Your task to perform on an android device: View the shopping cart on newegg. Image 0: 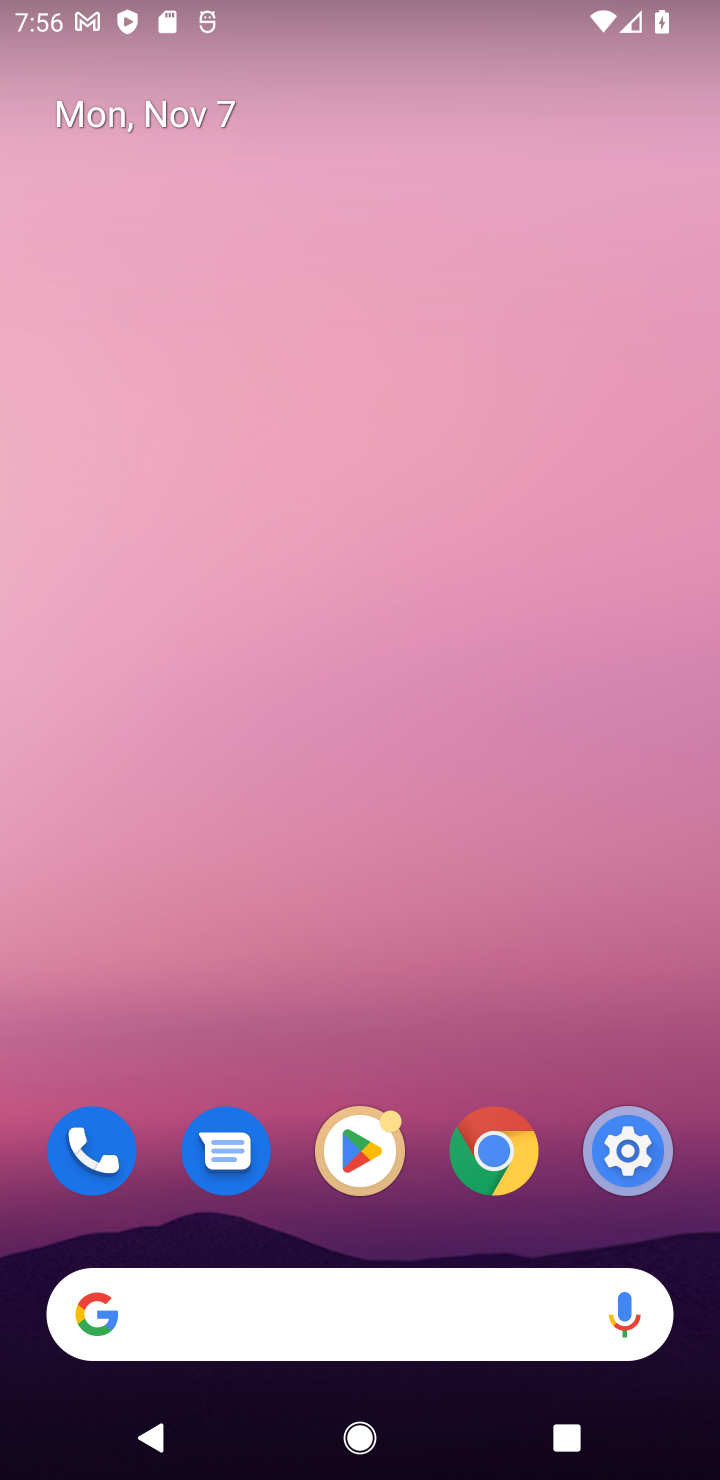
Step 0: click (507, 1169)
Your task to perform on an android device: View the shopping cart on newegg. Image 1: 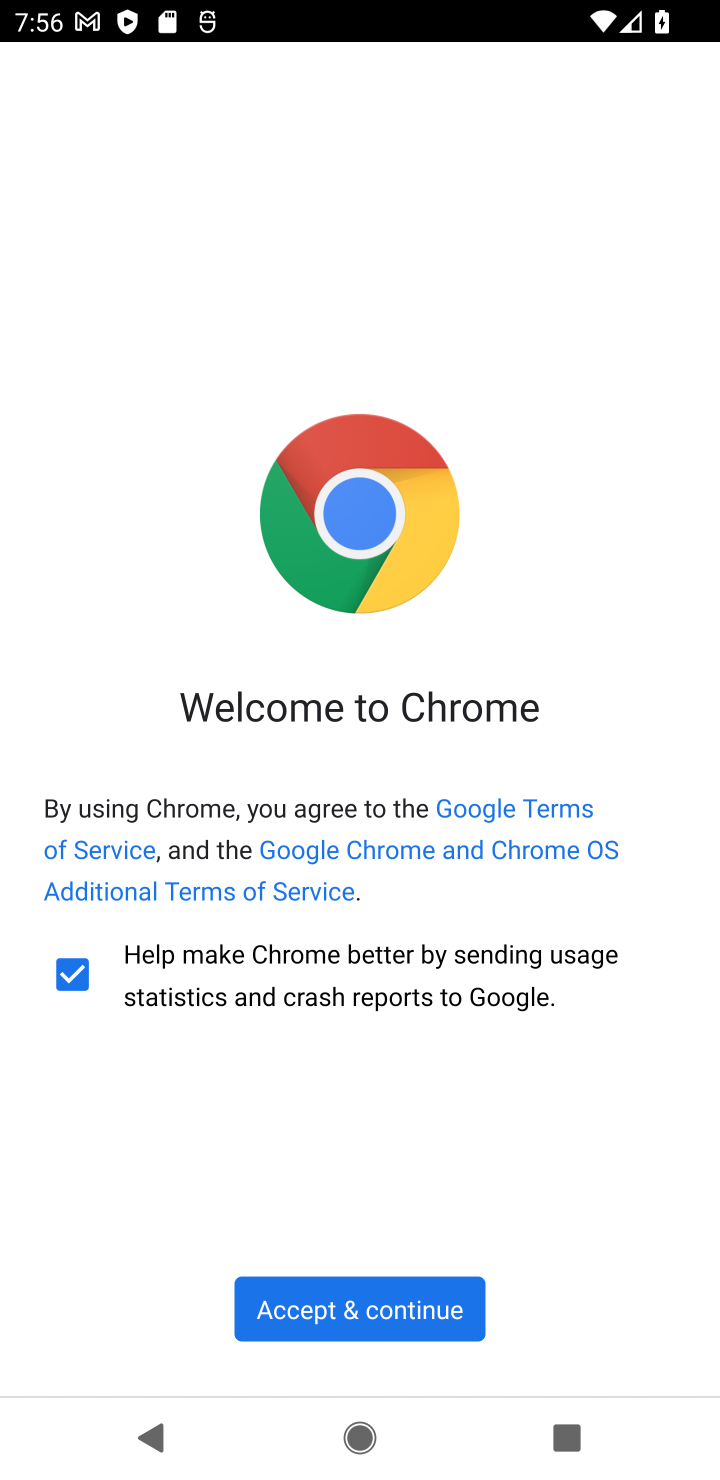
Step 1: click (412, 1305)
Your task to perform on an android device: View the shopping cart on newegg. Image 2: 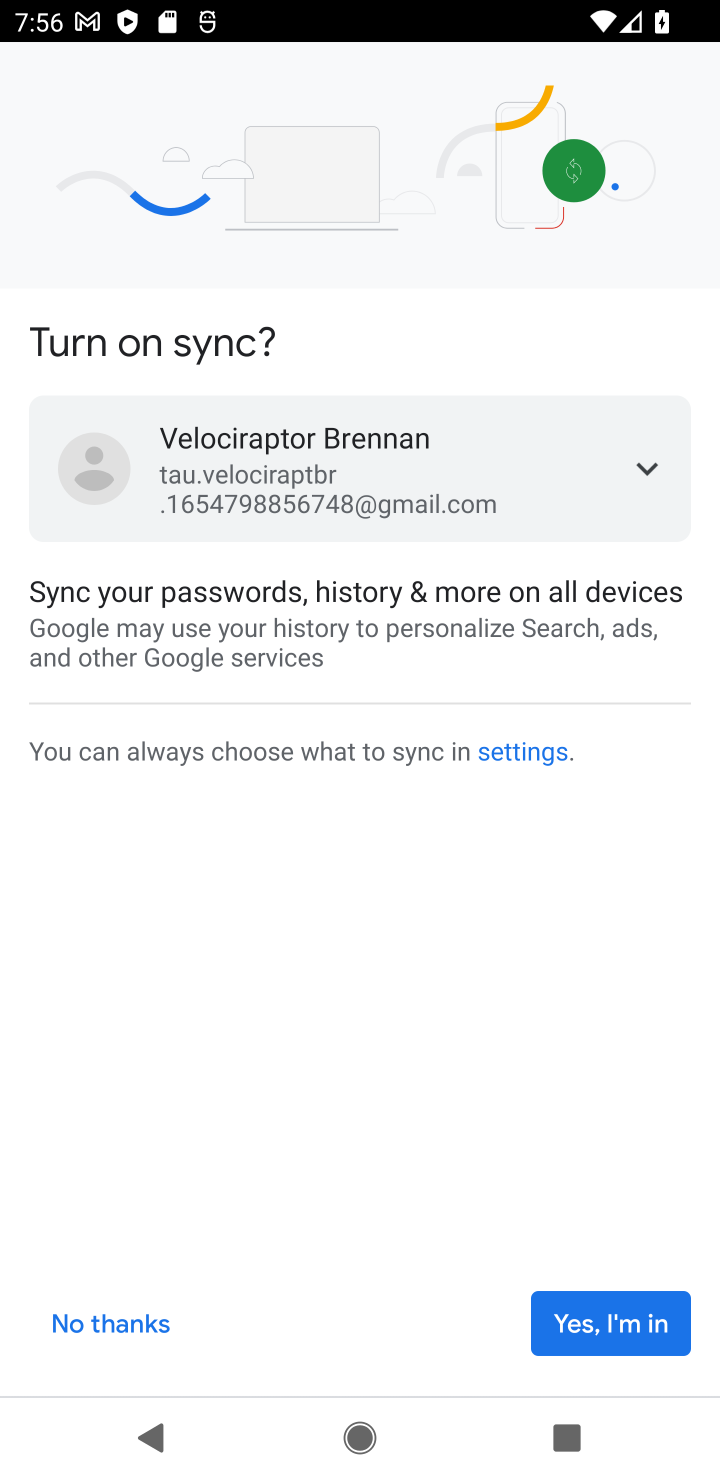
Step 2: click (608, 1315)
Your task to perform on an android device: View the shopping cart on newegg. Image 3: 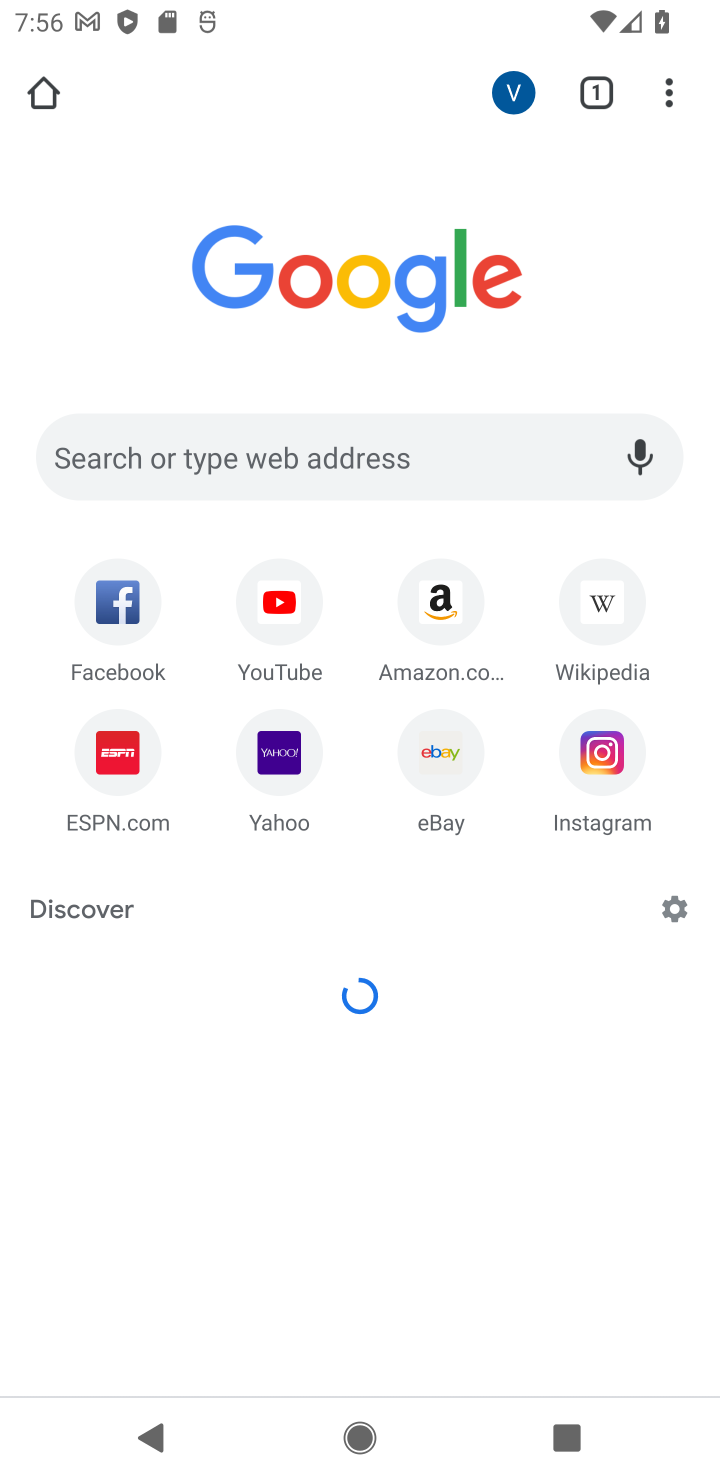
Step 3: click (510, 457)
Your task to perform on an android device: View the shopping cart on newegg. Image 4: 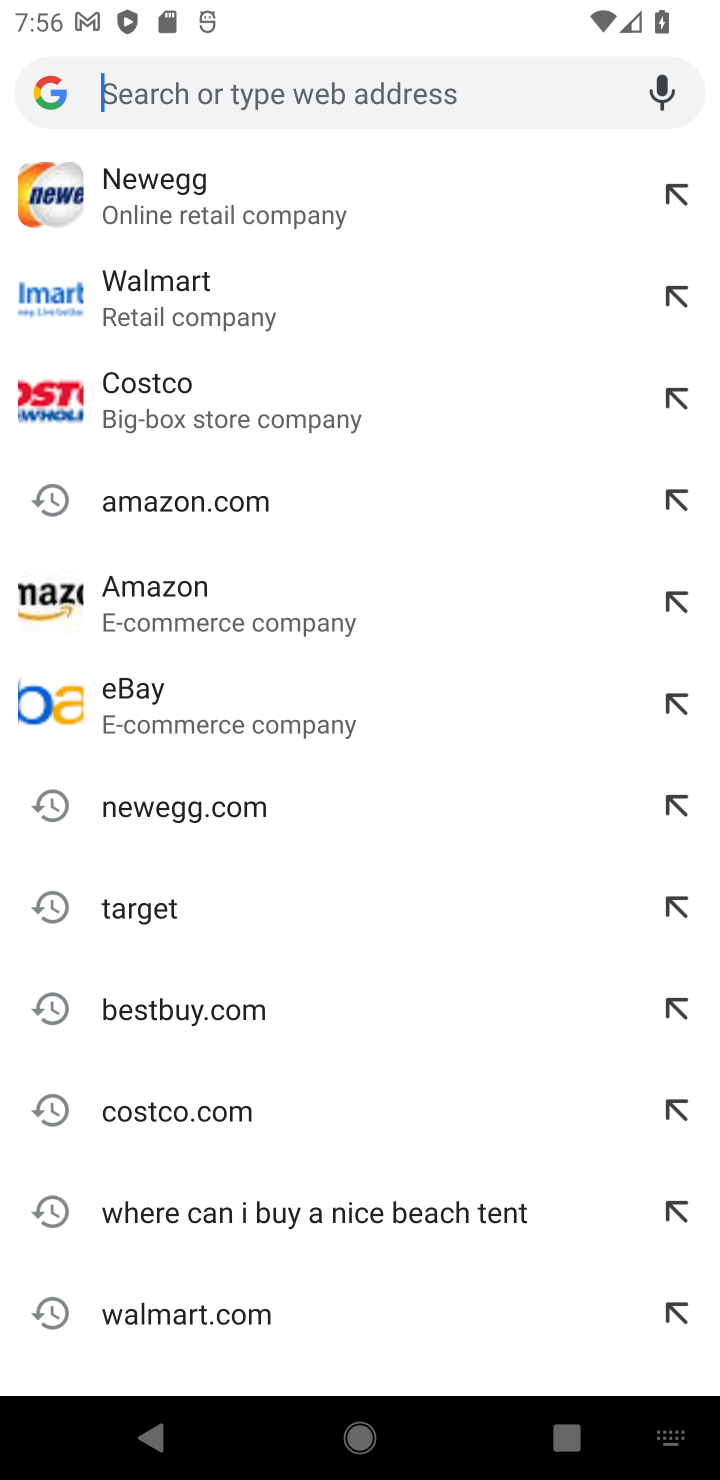
Step 4: type "newegg"
Your task to perform on an android device: View the shopping cart on newegg. Image 5: 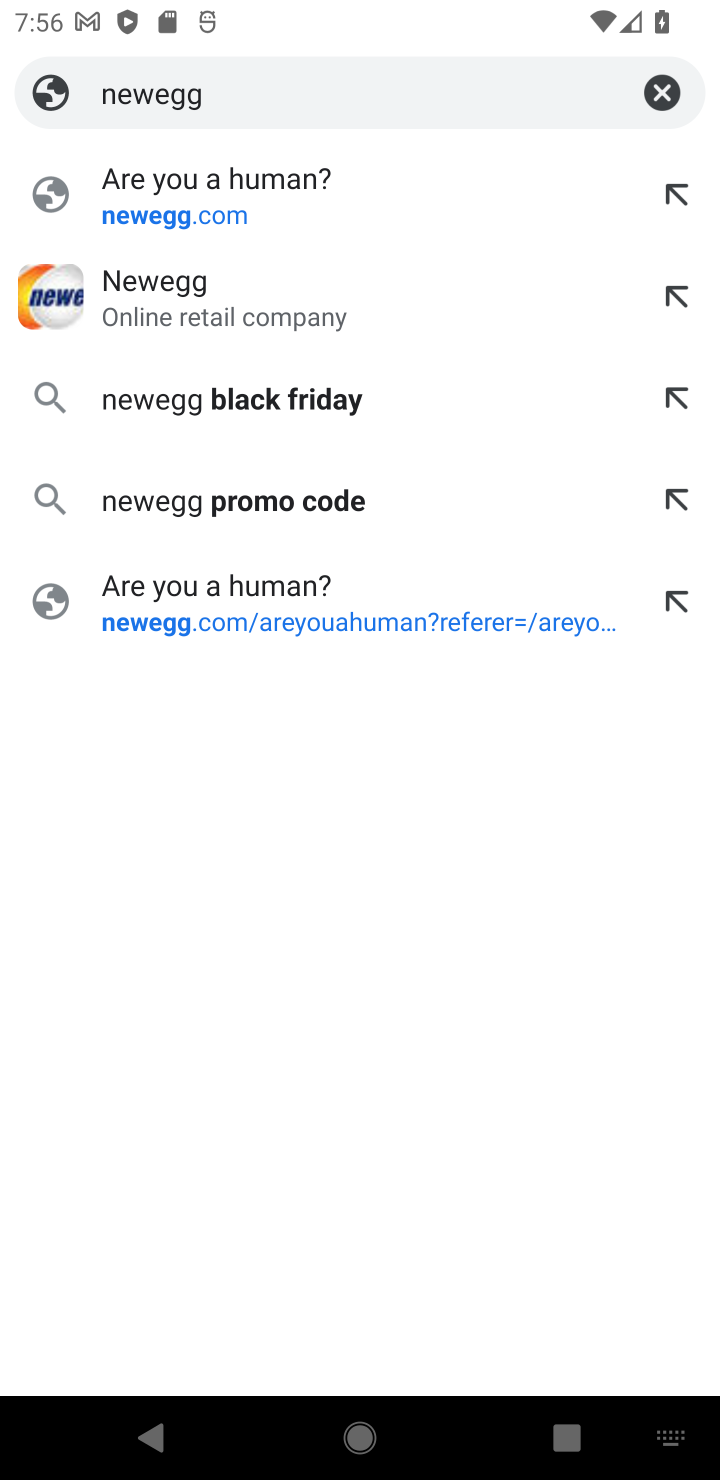
Step 5: click (504, 100)
Your task to perform on an android device: View the shopping cart on newegg. Image 6: 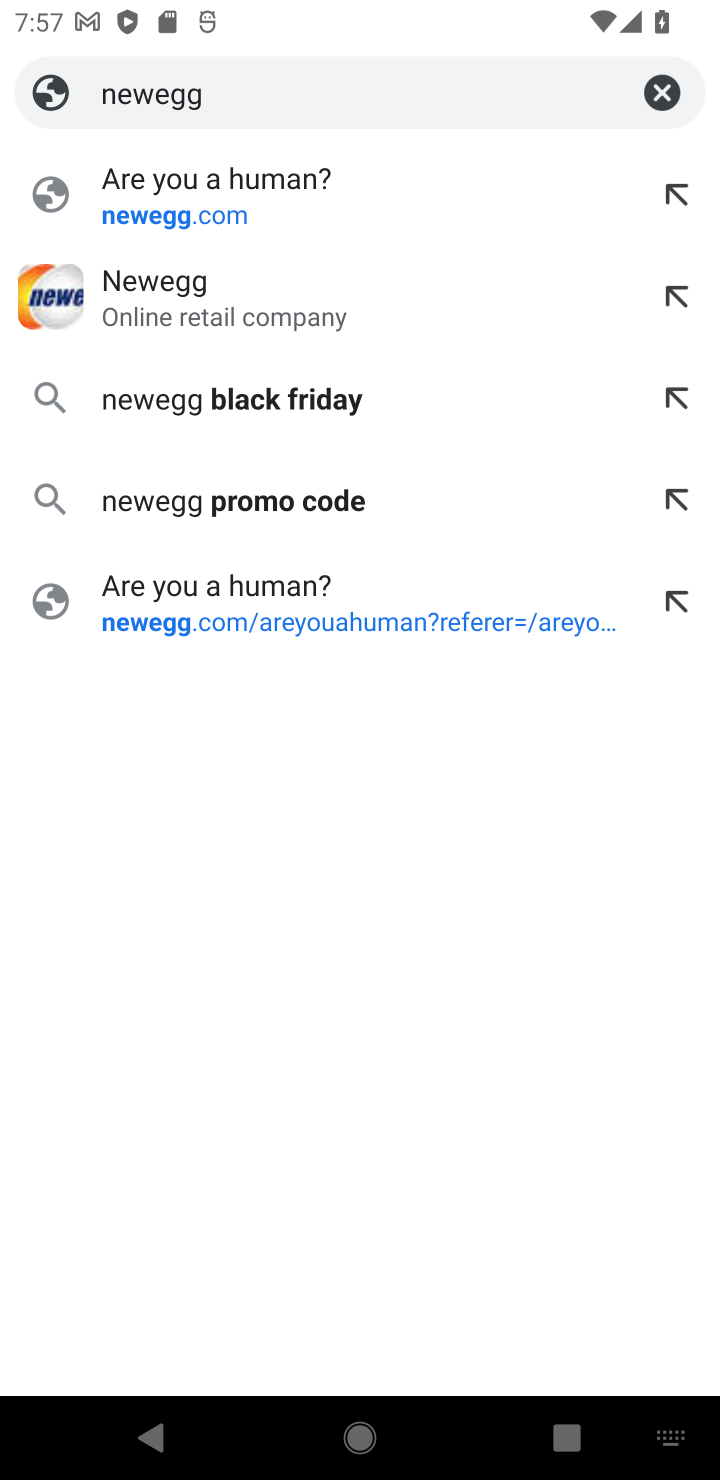
Step 6: click (200, 295)
Your task to perform on an android device: View the shopping cart on newegg. Image 7: 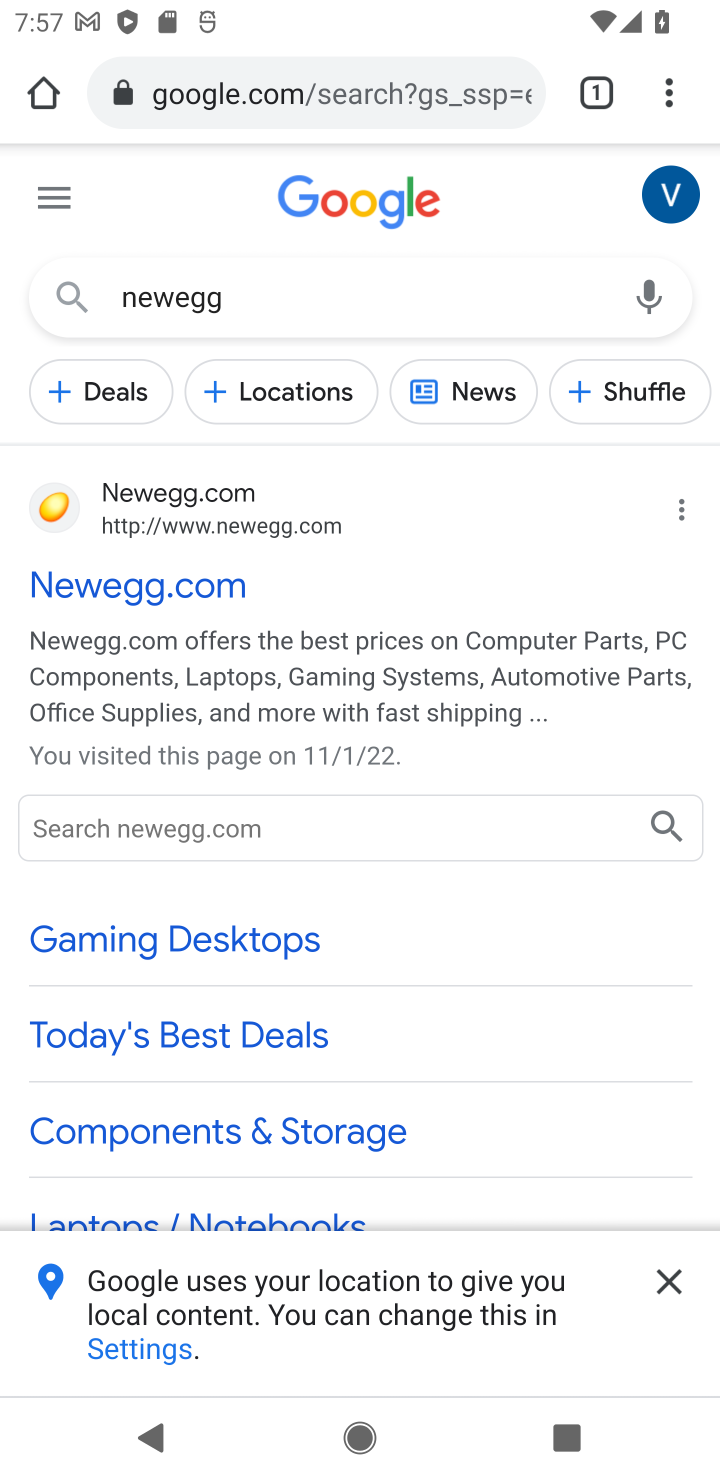
Step 7: click (233, 507)
Your task to perform on an android device: View the shopping cart on newegg. Image 8: 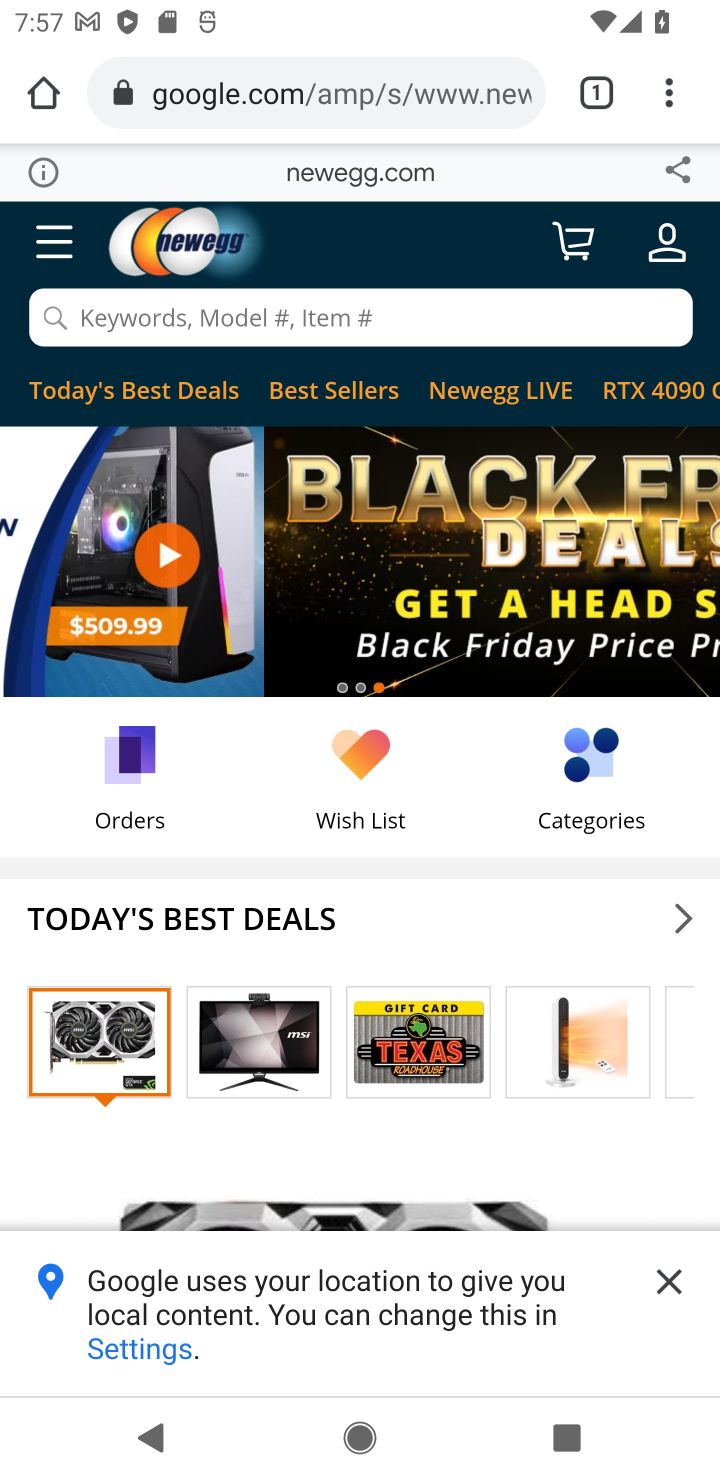
Step 8: click (566, 254)
Your task to perform on an android device: View the shopping cart on newegg. Image 9: 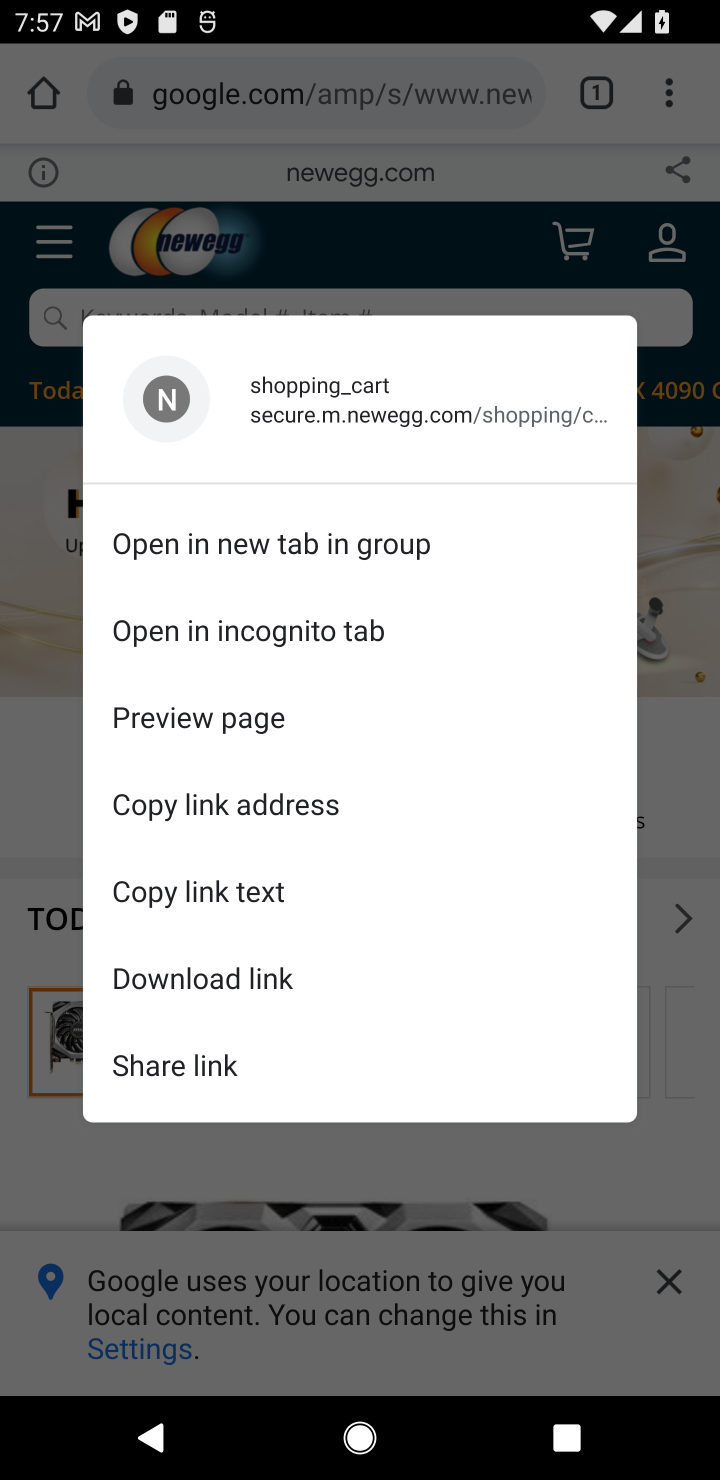
Step 9: click (606, 1189)
Your task to perform on an android device: View the shopping cart on newegg. Image 10: 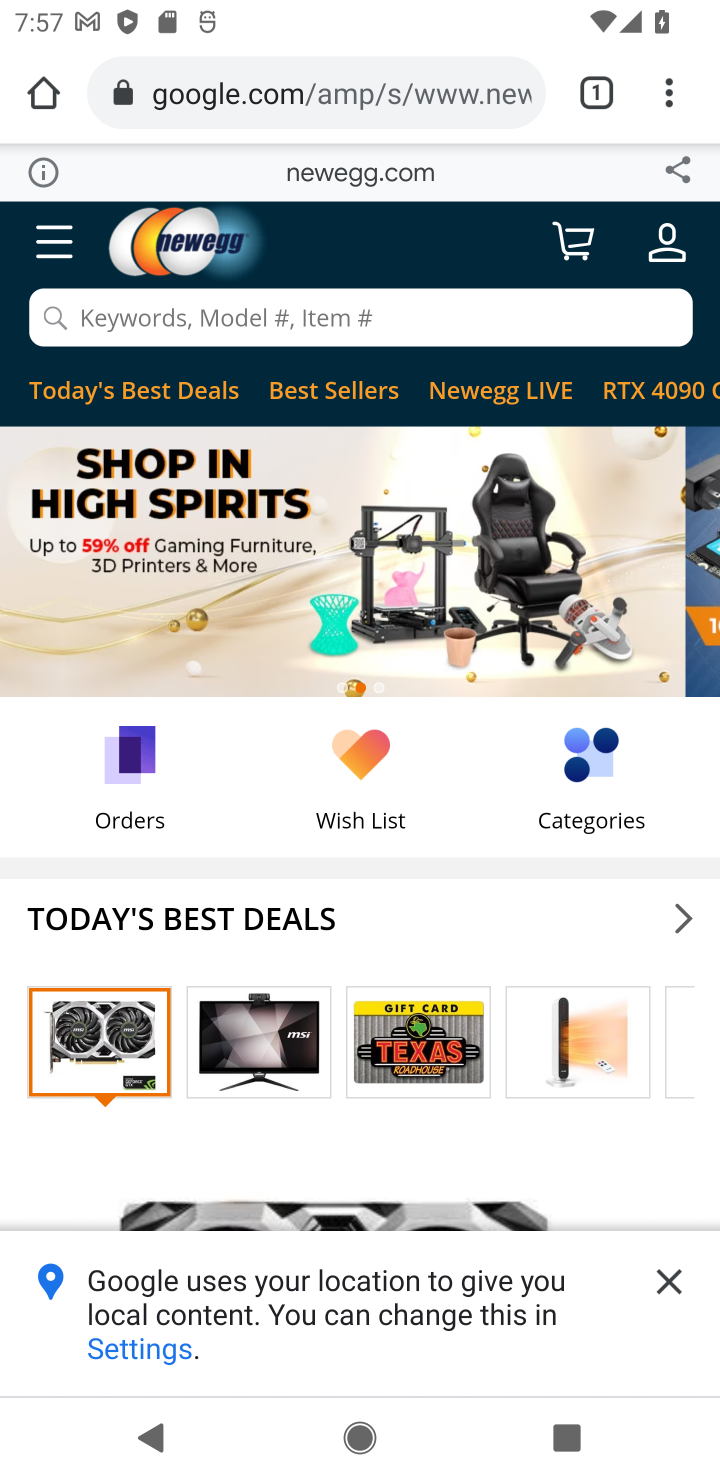
Step 10: click (573, 253)
Your task to perform on an android device: View the shopping cart on newegg. Image 11: 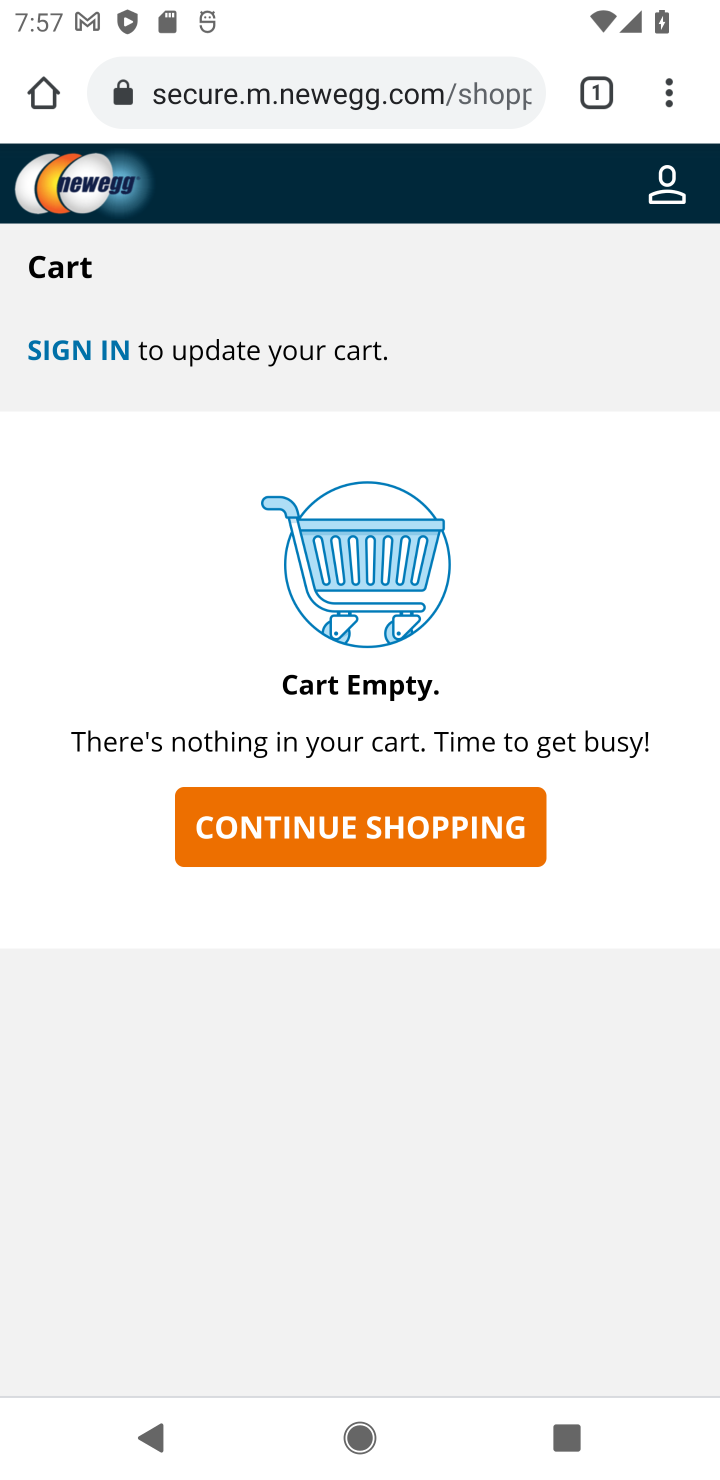
Step 11: task complete